Your task to perform on an android device: open app "Instagram" (install if not already installed) Image 0: 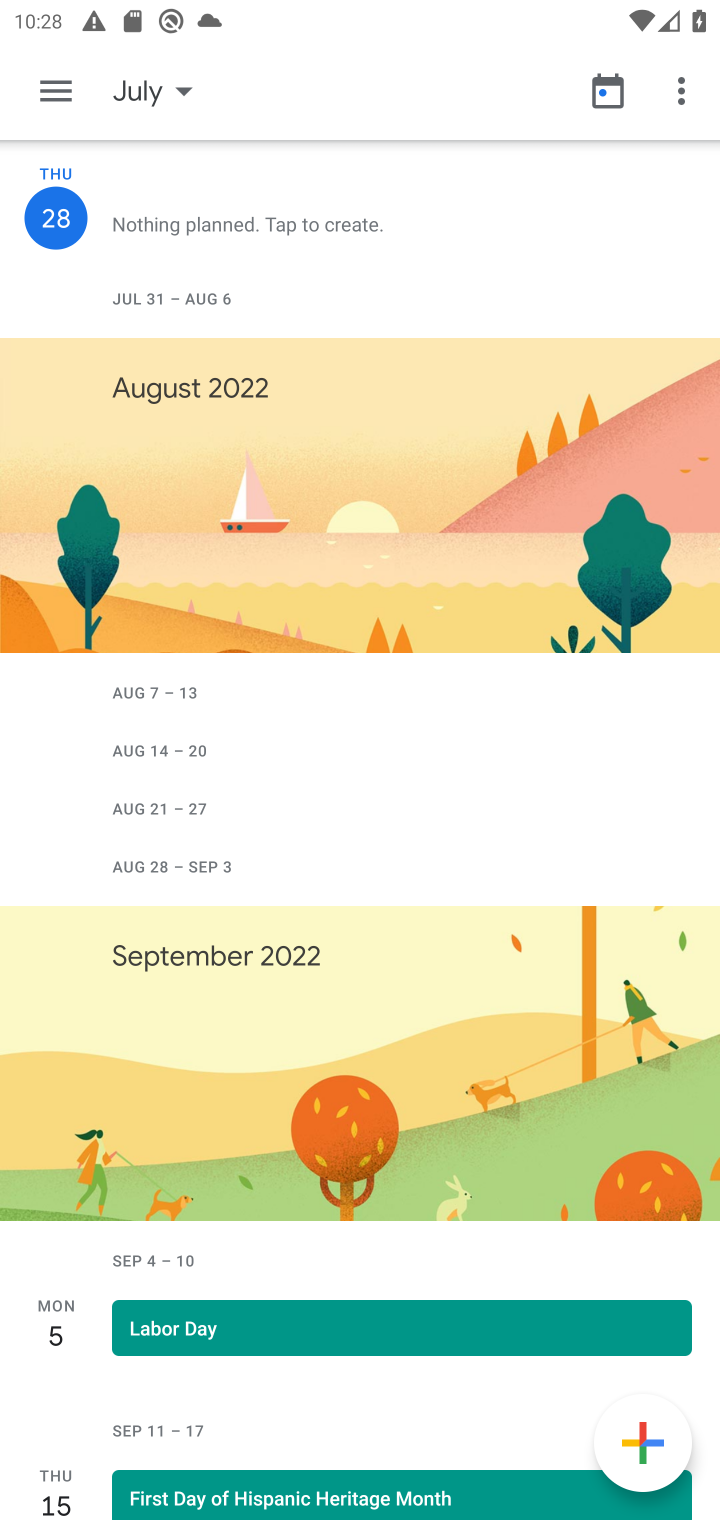
Step 0: press home button
Your task to perform on an android device: open app "Instagram" (install if not already installed) Image 1: 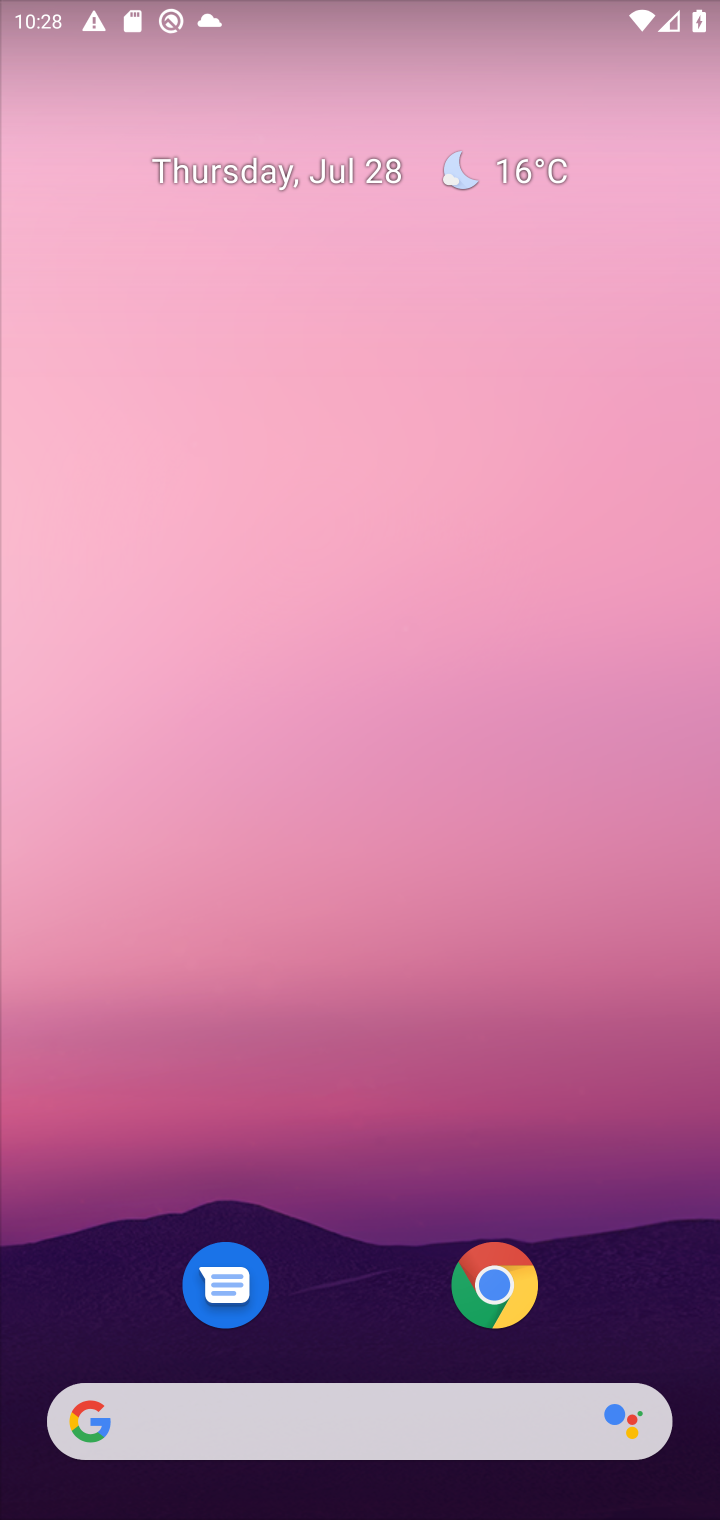
Step 1: drag from (608, 1187) to (297, 161)
Your task to perform on an android device: open app "Instagram" (install if not already installed) Image 2: 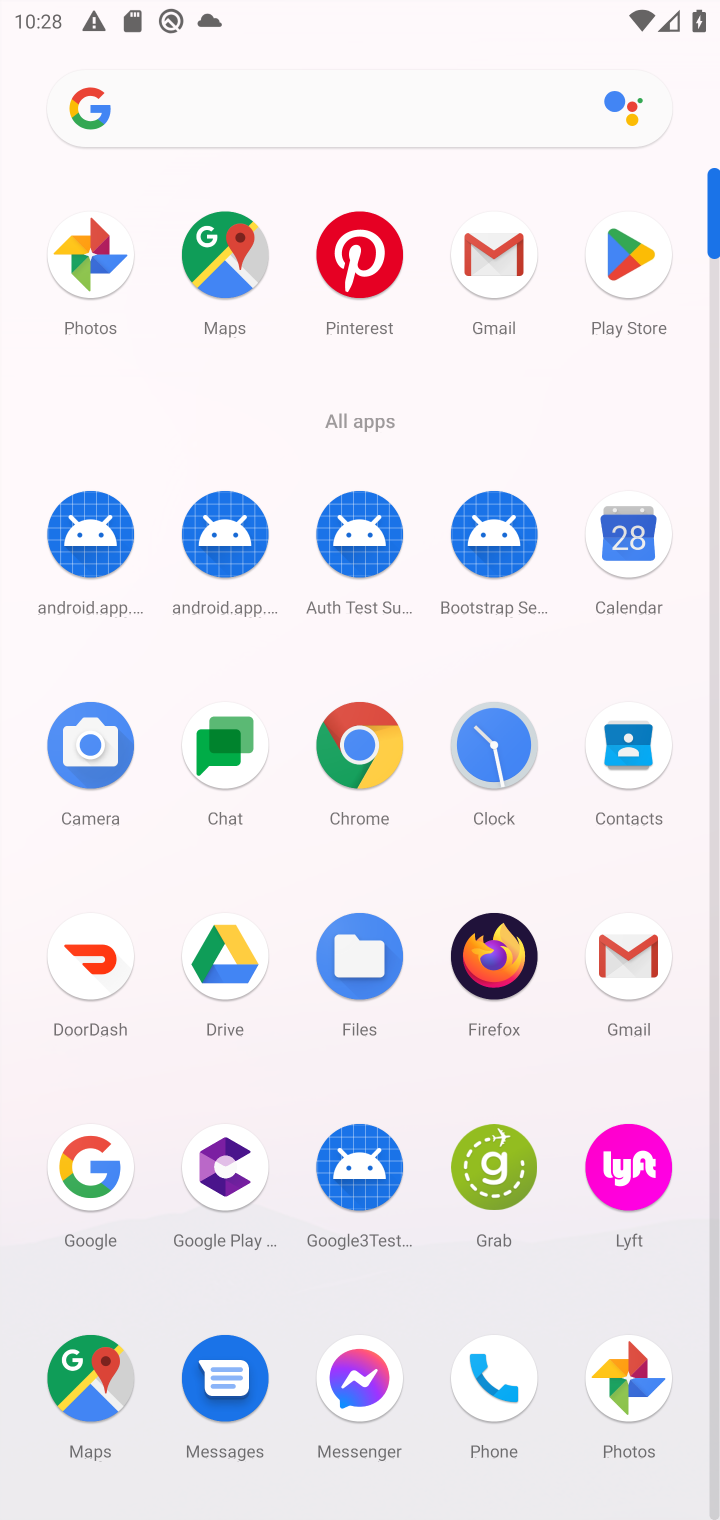
Step 2: click (642, 239)
Your task to perform on an android device: open app "Instagram" (install if not already installed) Image 3: 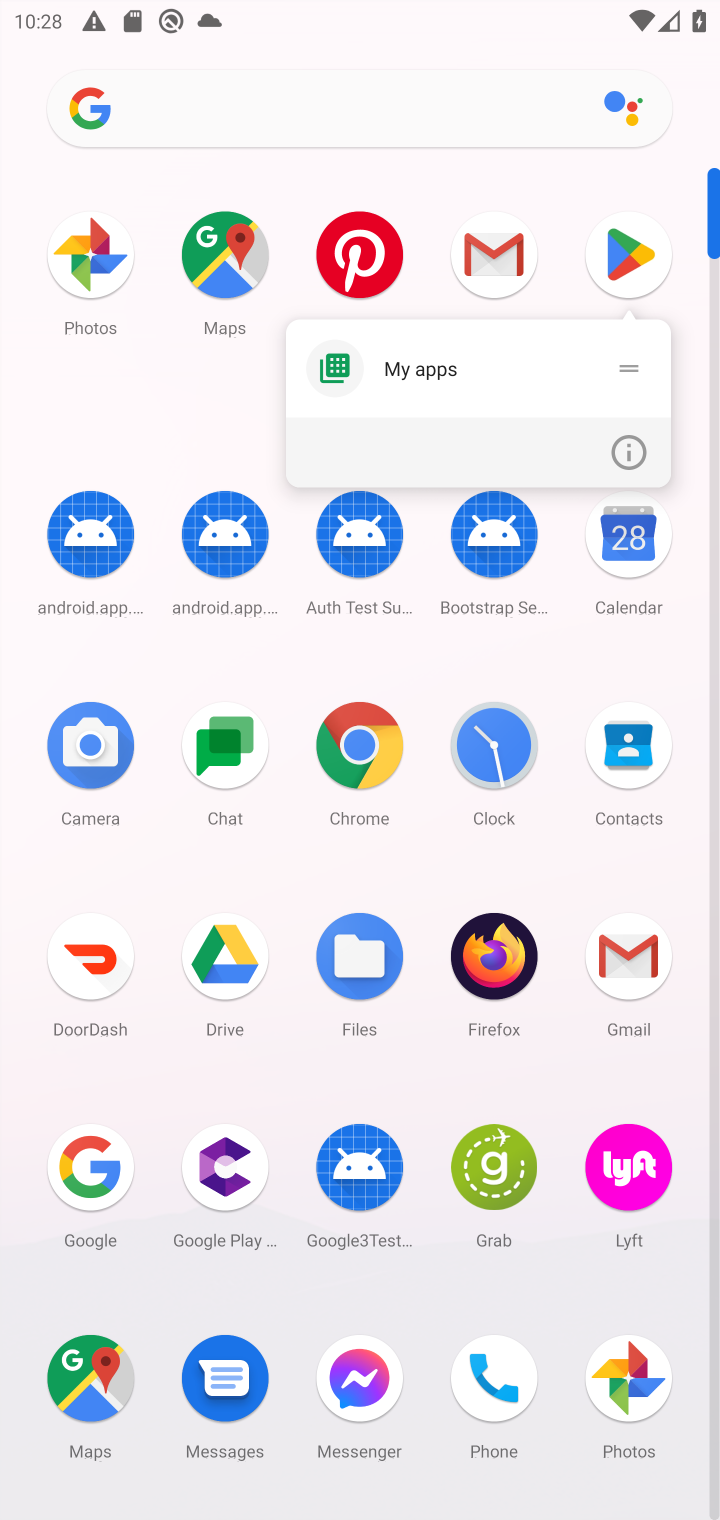
Step 3: click (639, 258)
Your task to perform on an android device: open app "Instagram" (install if not already installed) Image 4: 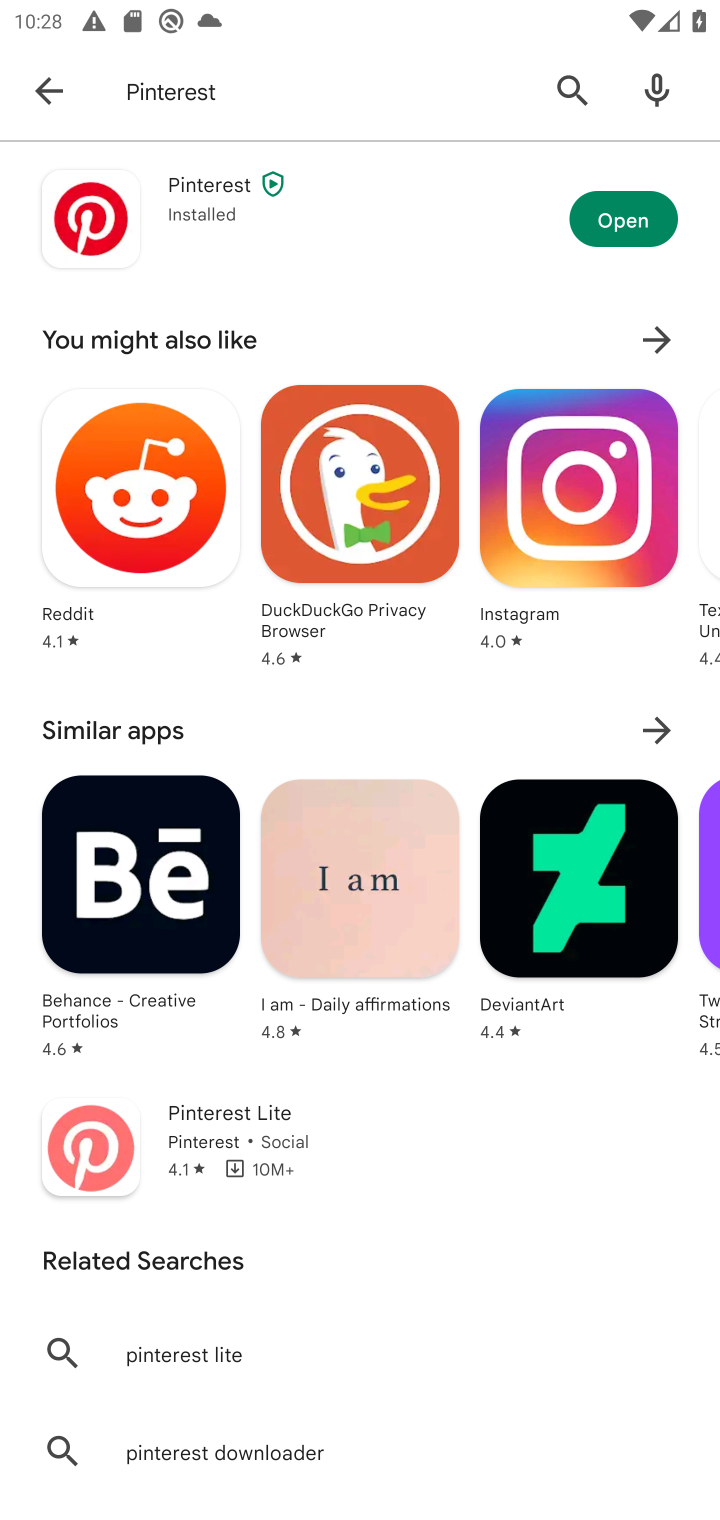
Step 4: click (415, 104)
Your task to perform on an android device: open app "Instagram" (install if not already installed) Image 5: 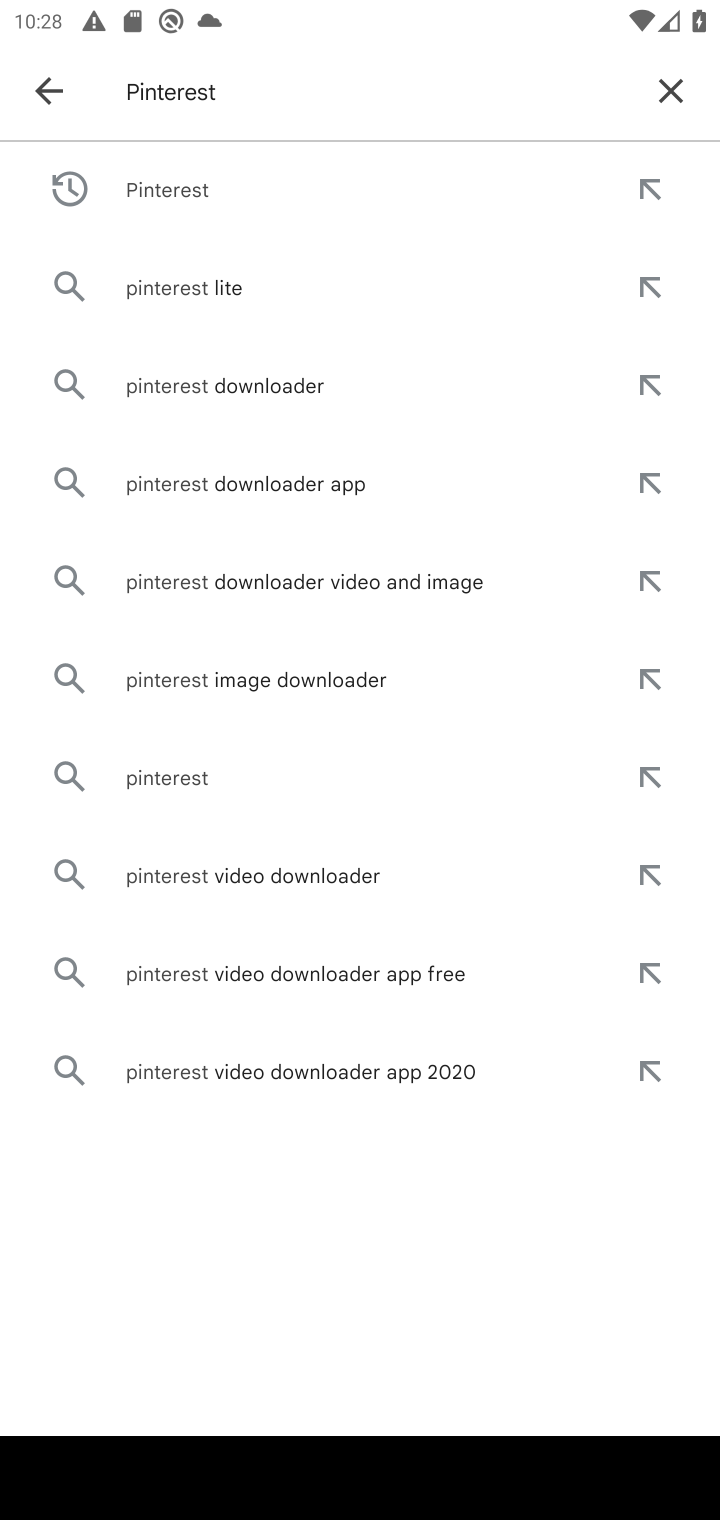
Step 5: click (653, 84)
Your task to perform on an android device: open app "Instagram" (install if not already installed) Image 6: 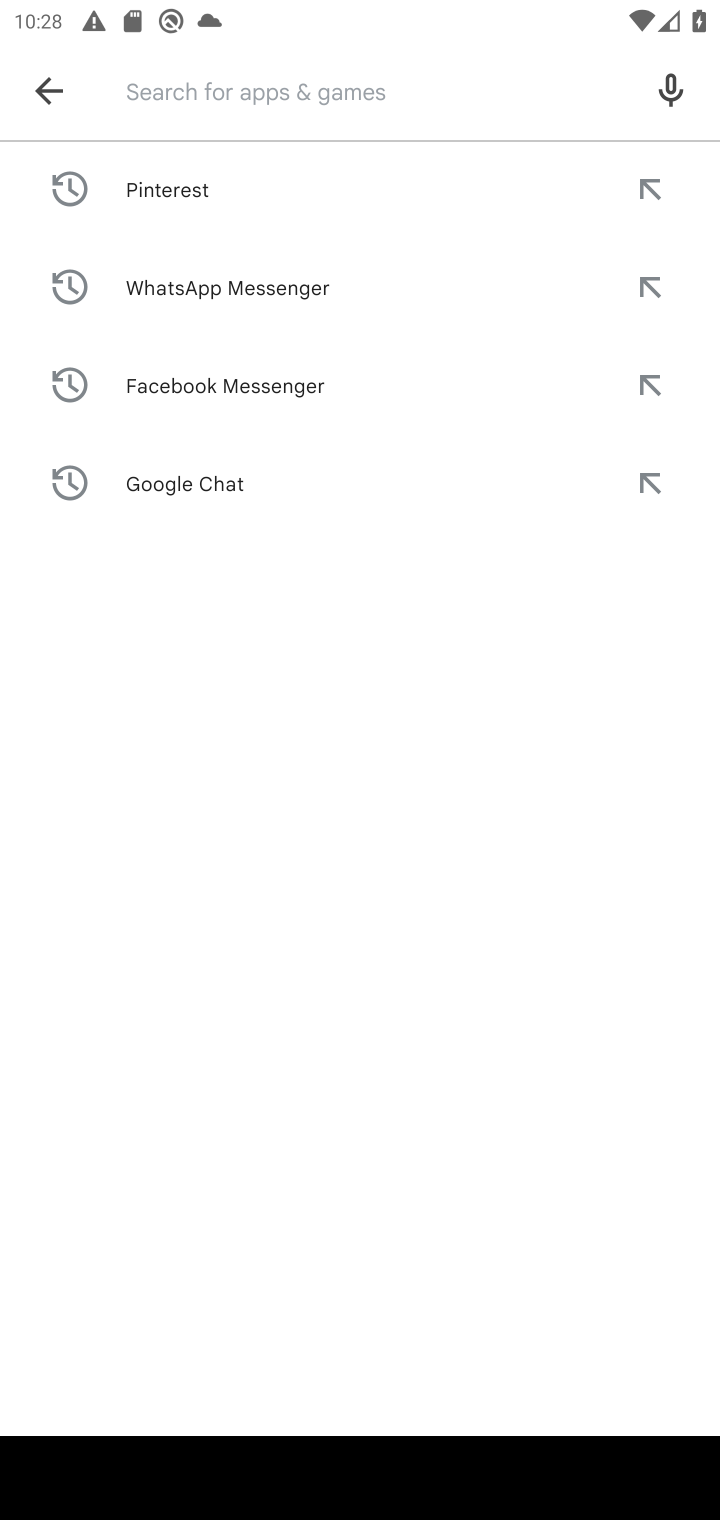
Step 6: type "Istagram"
Your task to perform on an android device: open app "Instagram" (install if not already installed) Image 7: 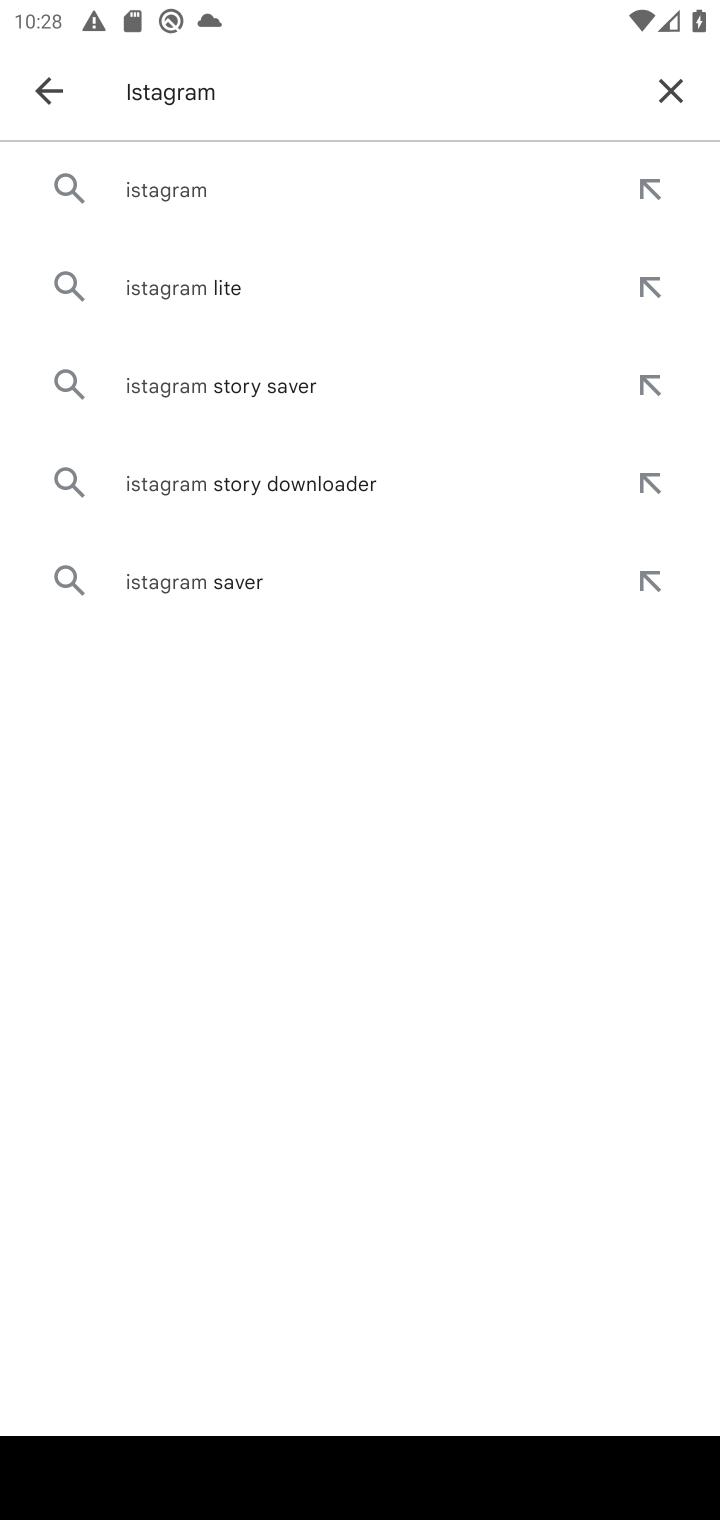
Step 7: click (413, 199)
Your task to perform on an android device: open app "Instagram" (install if not already installed) Image 8: 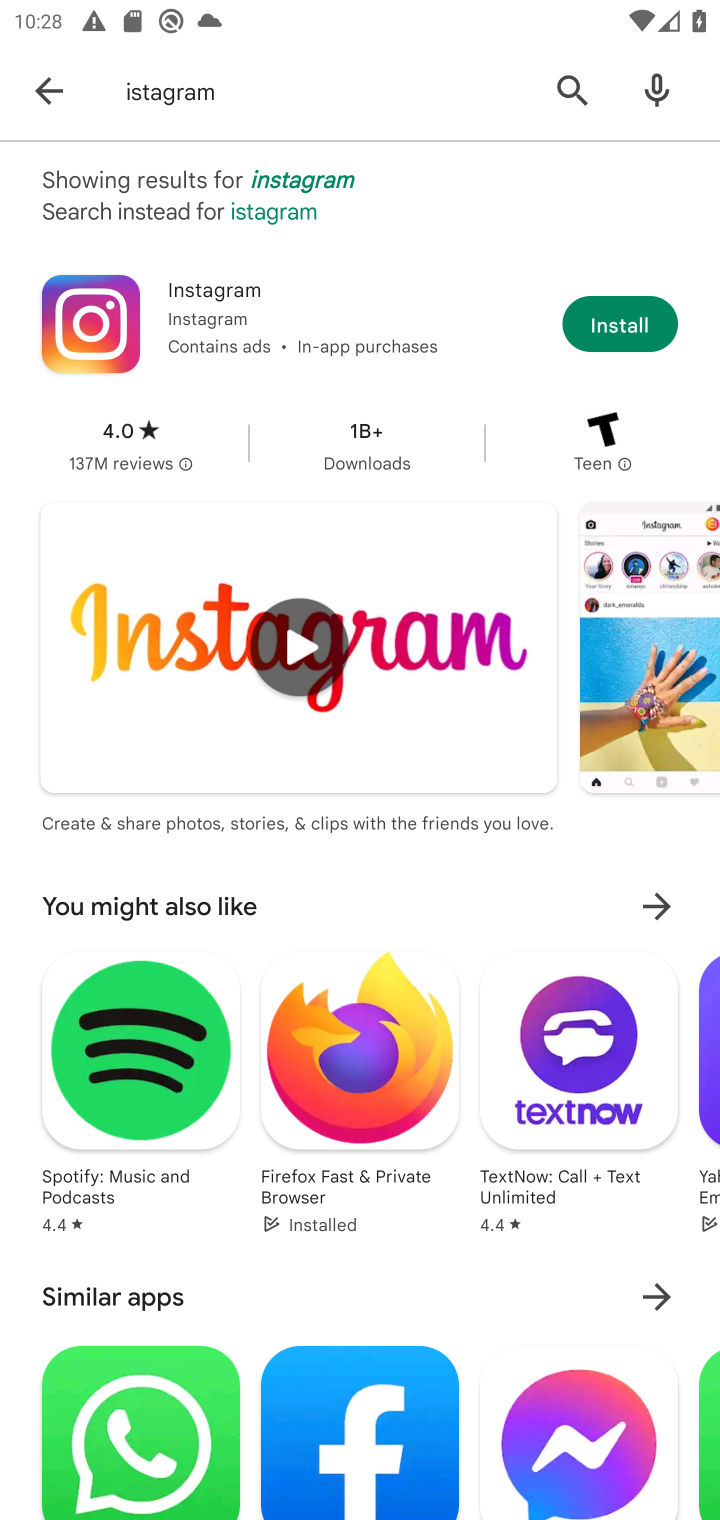
Step 8: click (606, 317)
Your task to perform on an android device: open app "Instagram" (install if not already installed) Image 9: 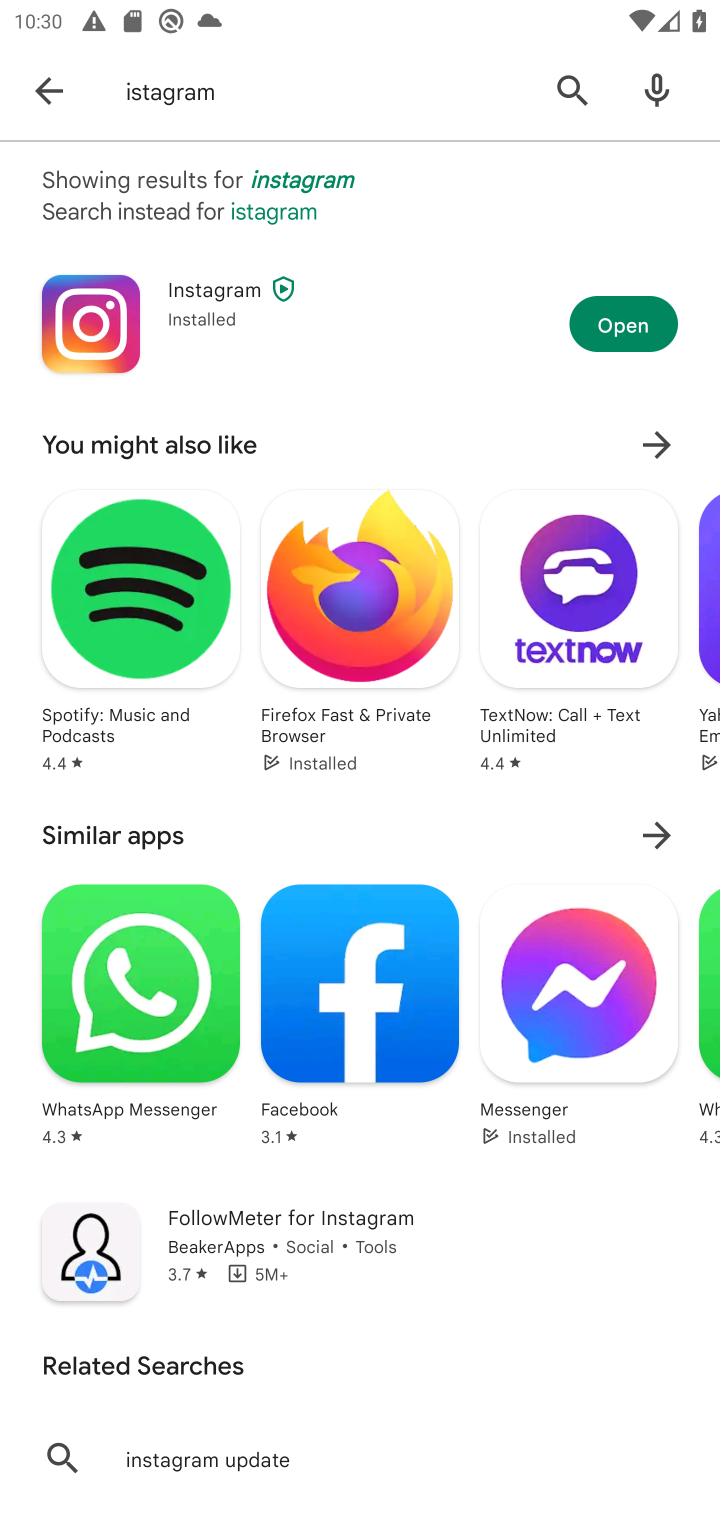
Step 9: click (628, 321)
Your task to perform on an android device: open app "Instagram" (install if not already installed) Image 10: 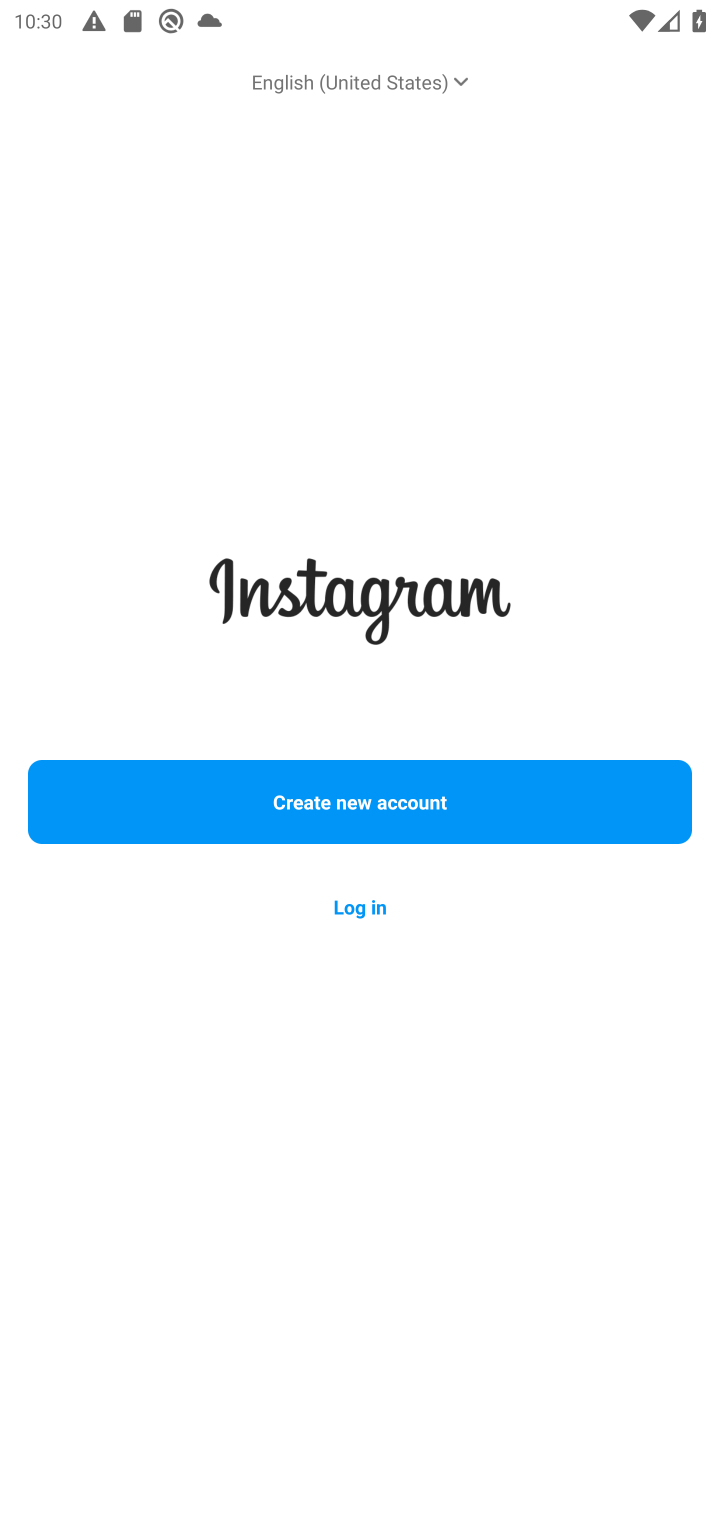
Step 10: task complete